Your task to perform on an android device: turn on sleep mode Image 0: 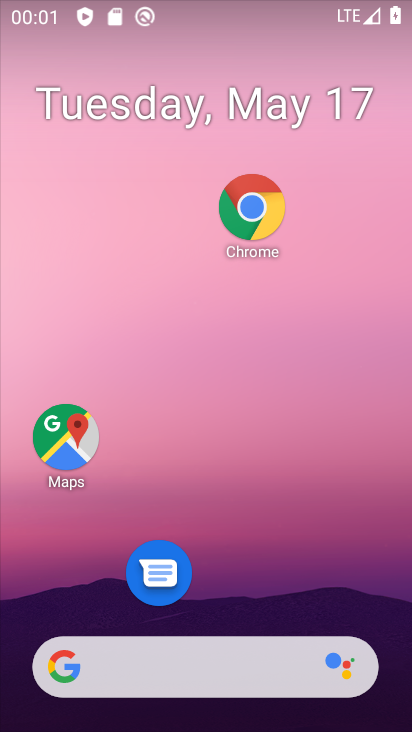
Step 0: drag from (162, 673) to (244, 71)
Your task to perform on an android device: turn on sleep mode Image 1: 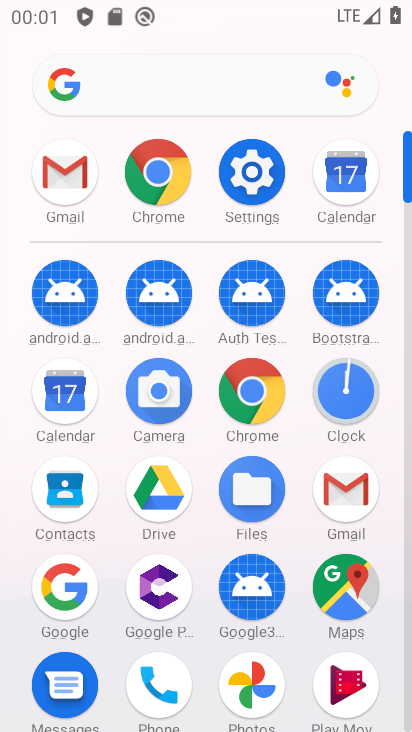
Step 1: click (265, 177)
Your task to perform on an android device: turn on sleep mode Image 2: 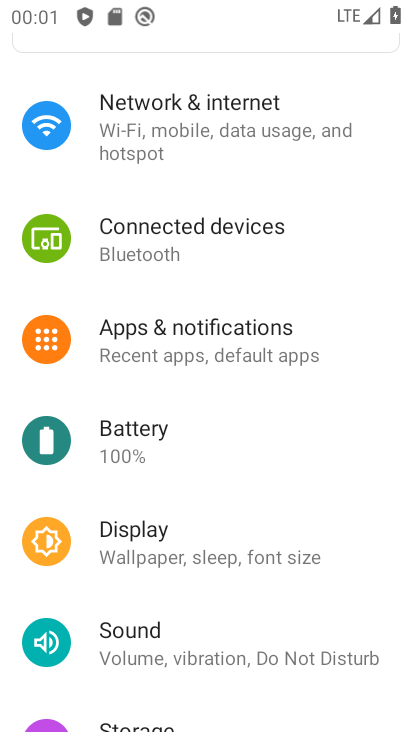
Step 2: drag from (252, 693) to (256, 506)
Your task to perform on an android device: turn on sleep mode Image 3: 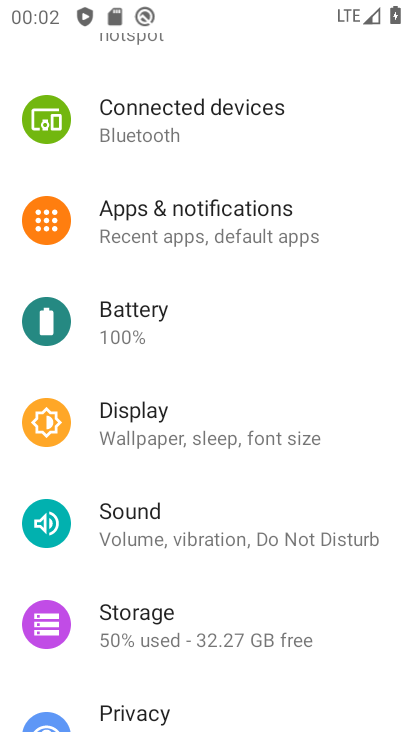
Step 3: click (163, 439)
Your task to perform on an android device: turn on sleep mode Image 4: 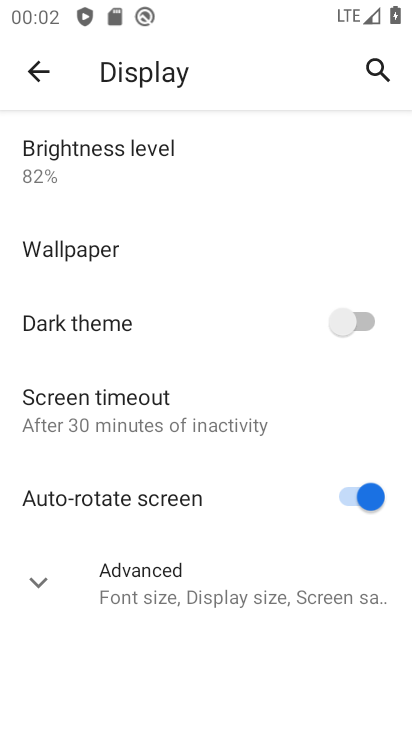
Step 4: task complete